Your task to perform on an android device: Search for sushi restaurants on Maps Image 0: 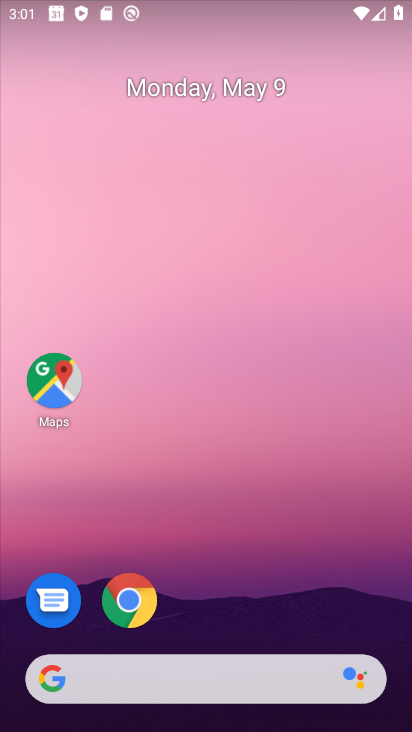
Step 0: drag from (224, 727) to (224, 104)
Your task to perform on an android device: Search for sushi restaurants on Maps Image 1: 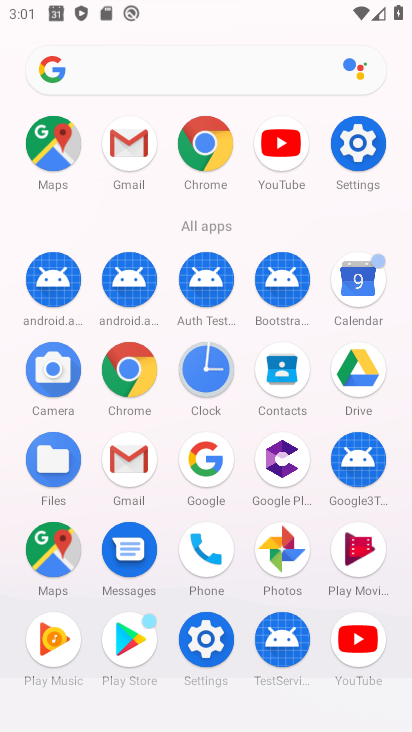
Step 1: click (59, 542)
Your task to perform on an android device: Search for sushi restaurants on Maps Image 2: 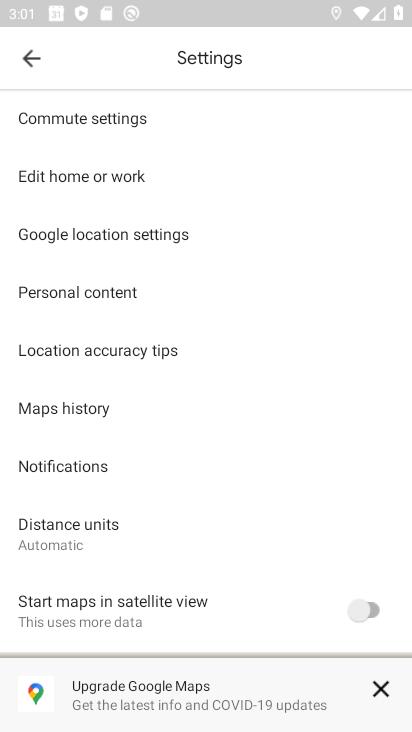
Step 2: click (32, 52)
Your task to perform on an android device: Search for sushi restaurants on Maps Image 3: 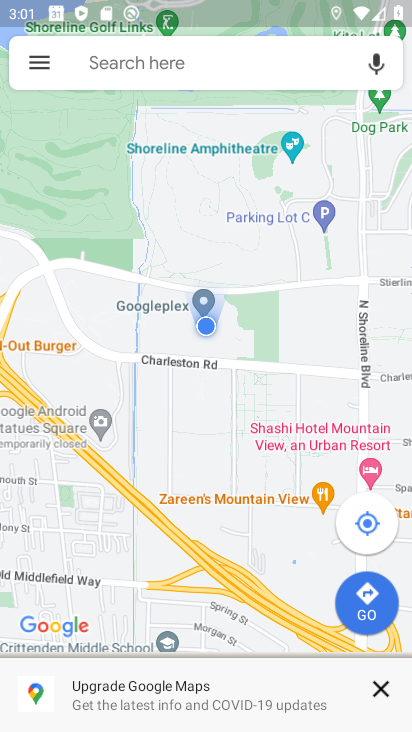
Step 3: click (216, 65)
Your task to perform on an android device: Search for sushi restaurants on Maps Image 4: 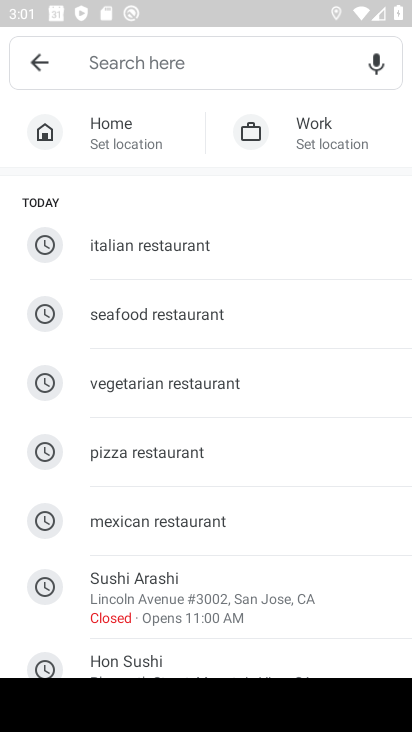
Step 4: type "sushi restaurants"
Your task to perform on an android device: Search for sushi restaurants on Maps Image 5: 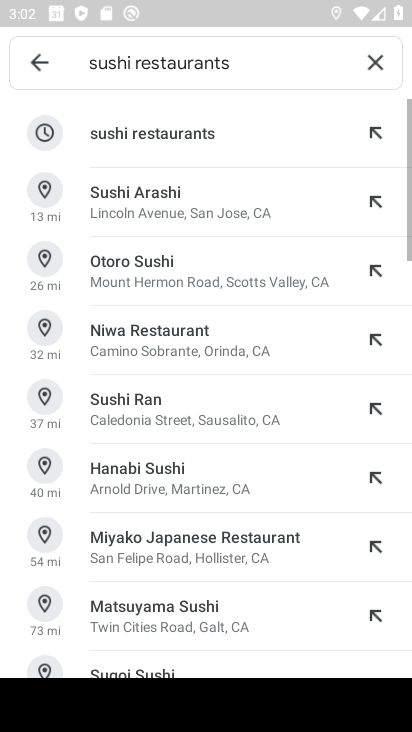
Step 5: click (181, 131)
Your task to perform on an android device: Search for sushi restaurants on Maps Image 6: 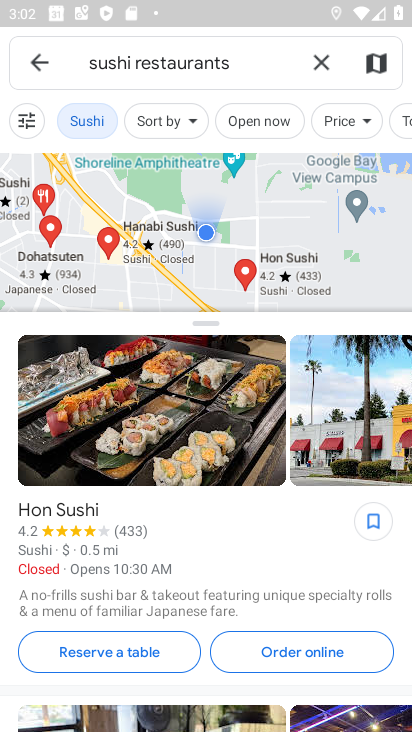
Step 6: task complete